Your task to perform on an android device: Open Google Maps and go to "Timeline" Image 0: 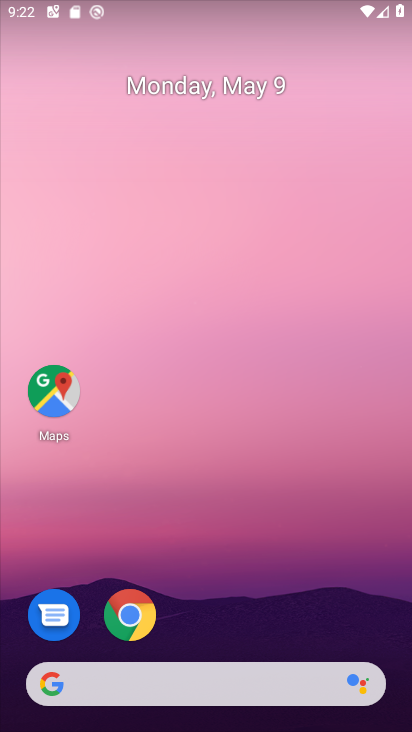
Step 0: click (201, 334)
Your task to perform on an android device: Open Google Maps and go to "Timeline" Image 1: 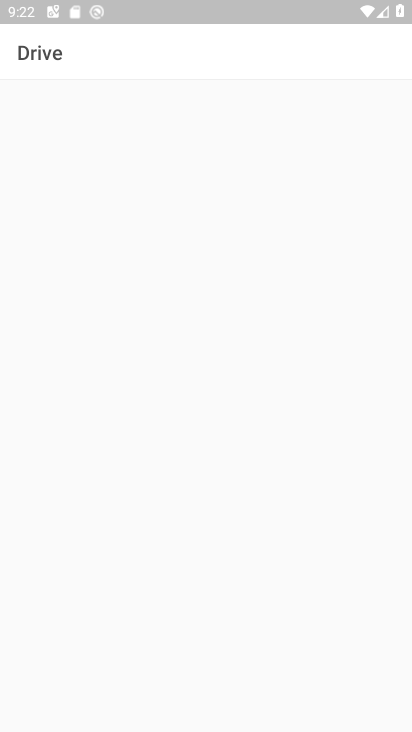
Step 1: press home button
Your task to perform on an android device: Open Google Maps and go to "Timeline" Image 2: 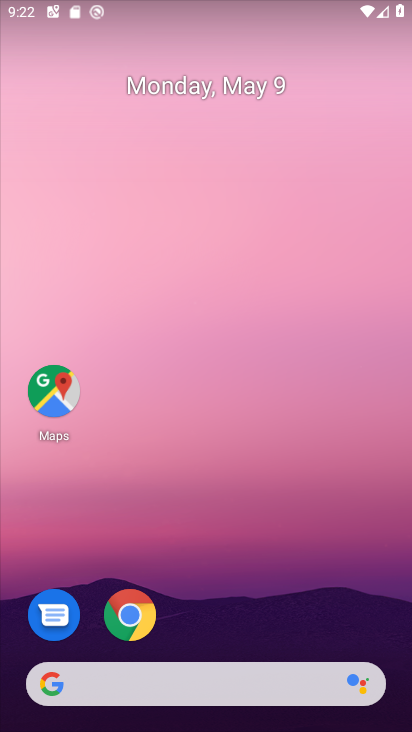
Step 2: click (32, 391)
Your task to perform on an android device: Open Google Maps and go to "Timeline" Image 3: 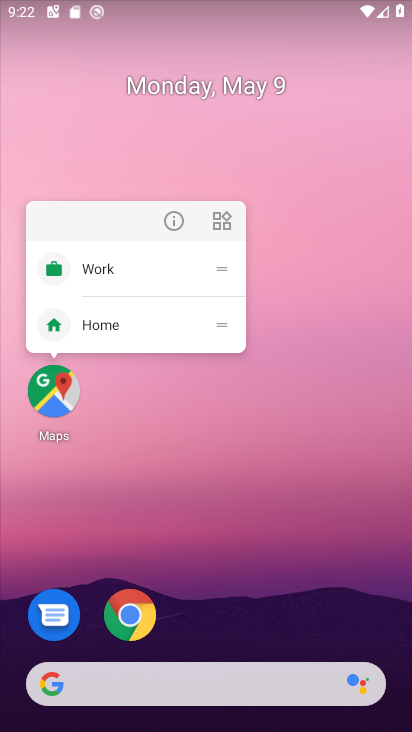
Step 3: click (69, 392)
Your task to perform on an android device: Open Google Maps and go to "Timeline" Image 4: 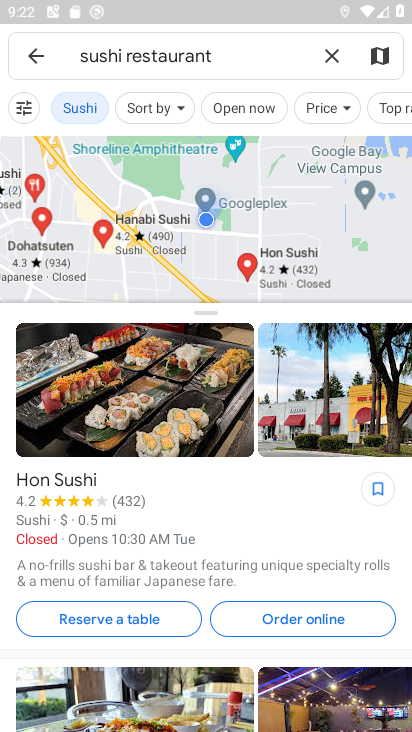
Step 4: click (38, 60)
Your task to perform on an android device: Open Google Maps and go to "Timeline" Image 5: 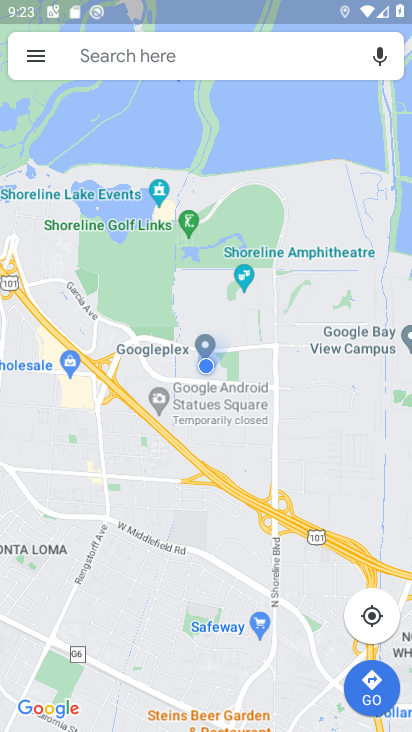
Step 5: click (36, 57)
Your task to perform on an android device: Open Google Maps and go to "Timeline" Image 6: 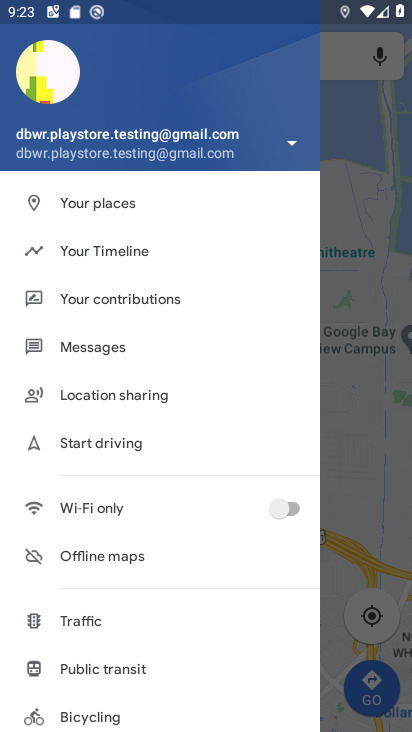
Step 6: click (122, 261)
Your task to perform on an android device: Open Google Maps and go to "Timeline" Image 7: 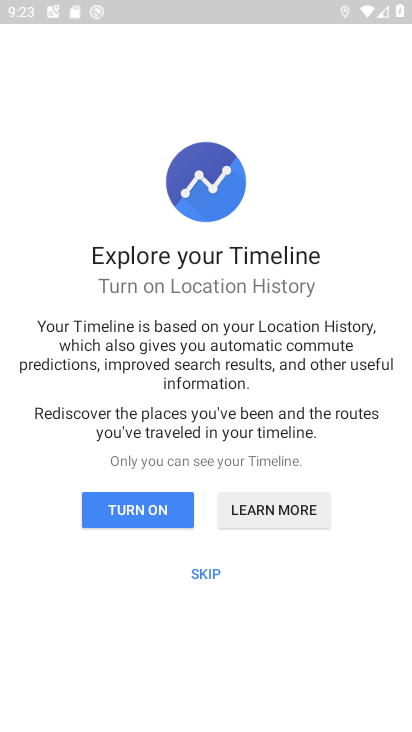
Step 7: click (205, 574)
Your task to perform on an android device: Open Google Maps and go to "Timeline" Image 8: 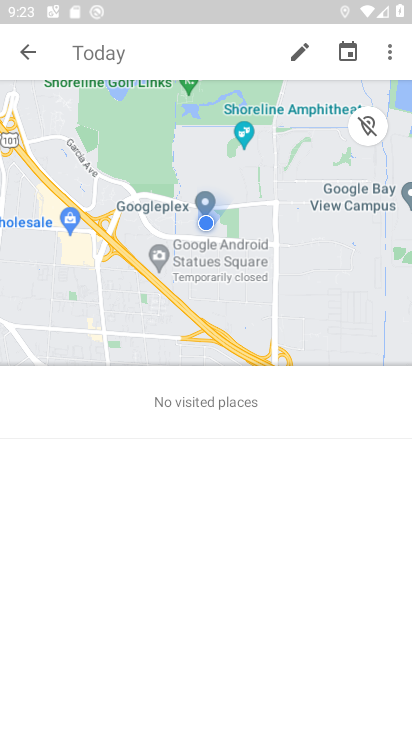
Step 8: task complete